Your task to perform on an android device: manage bookmarks in the chrome app Image 0: 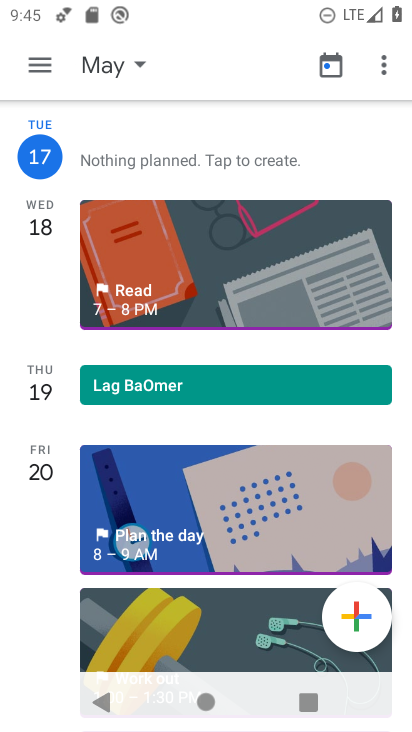
Step 0: press home button
Your task to perform on an android device: manage bookmarks in the chrome app Image 1: 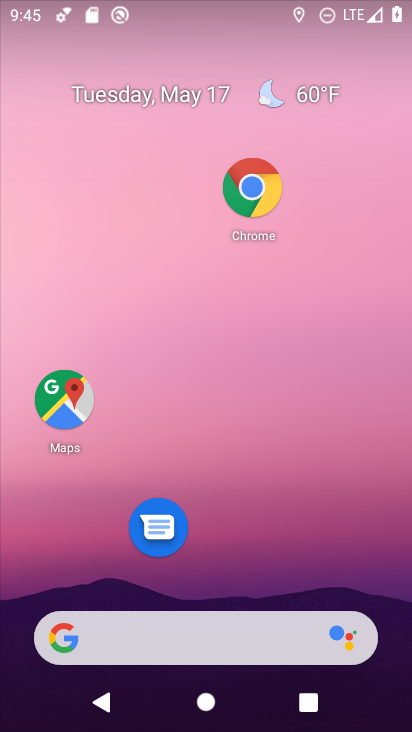
Step 1: click (248, 177)
Your task to perform on an android device: manage bookmarks in the chrome app Image 2: 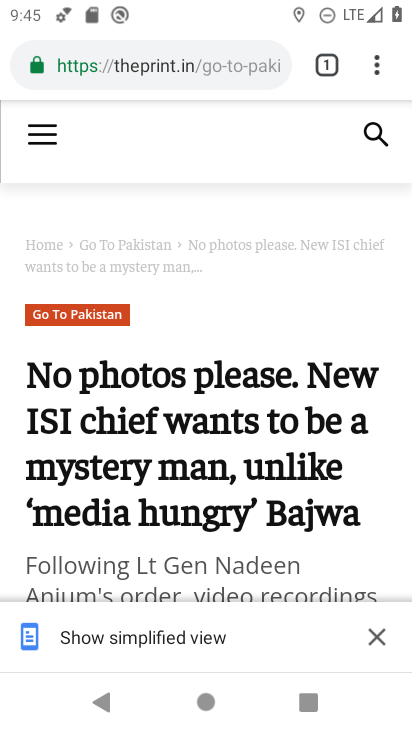
Step 2: click (381, 71)
Your task to perform on an android device: manage bookmarks in the chrome app Image 3: 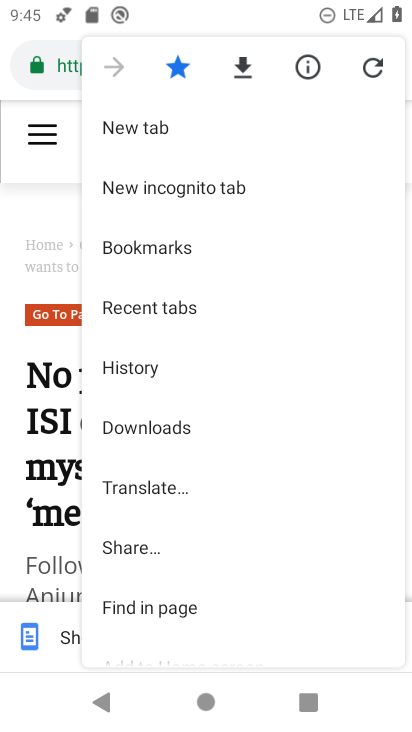
Step 3: drag from (207, 565) to (230, 278)
Your task to perform on an android device: manage bookmarks in the chrome app Image 4: 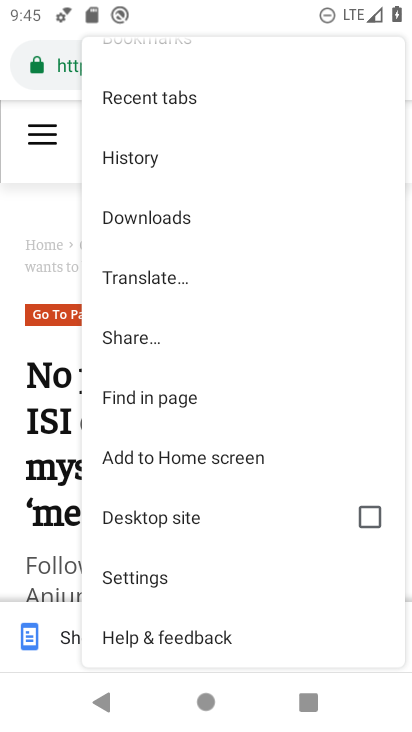
Step 4: drag from (184, 127) to (283, 306)
Your task to perform on an android device: manage bookmarks in the chrome app Image 5: 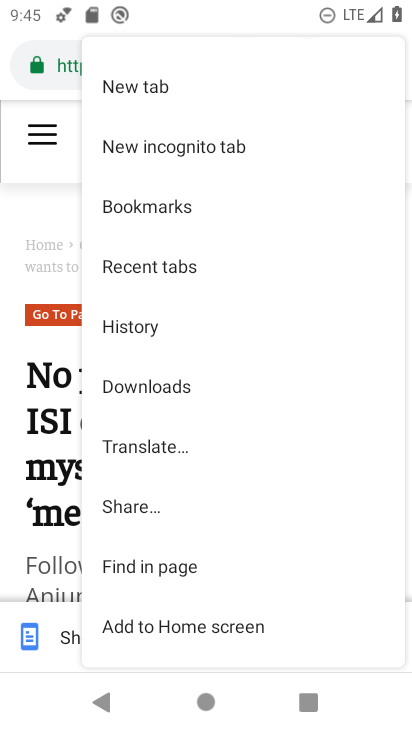
Step 5: click (211, 217)
Your task to perform on an android device: manage bookmarks in the chrome app Image 6: 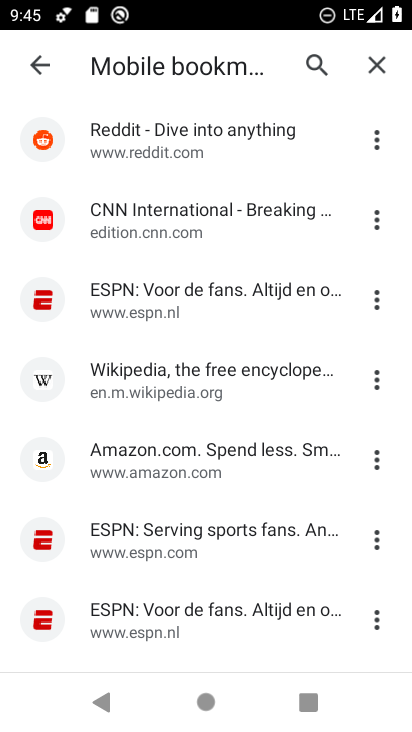
Step 6: click (370, 134)
Your task to perform on an android device: manage bookmarks in the chrome app Image 7: 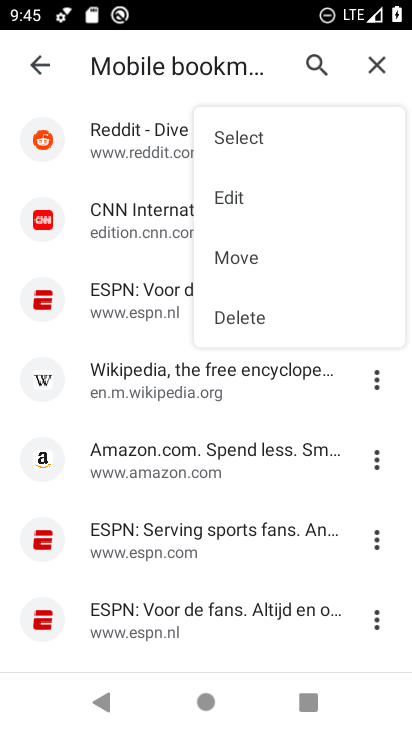
Step 7: click (267, 308)
Your task to perform on an android device: manage bookmarks in the chrome app Image 8: 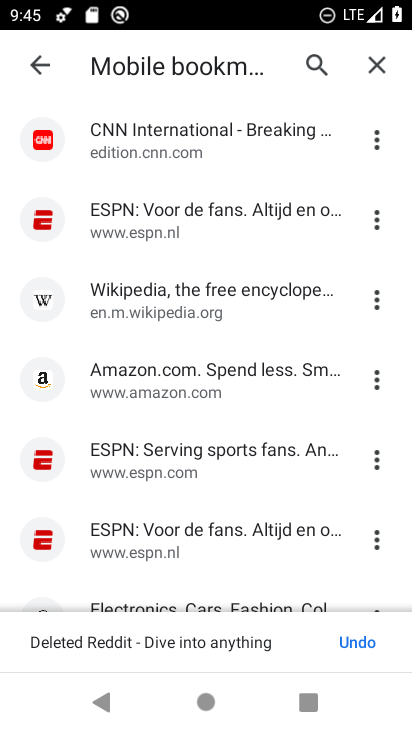
Step 8: task complete